Your task to perform on an android device: add a contact in the contacts app Image 0: 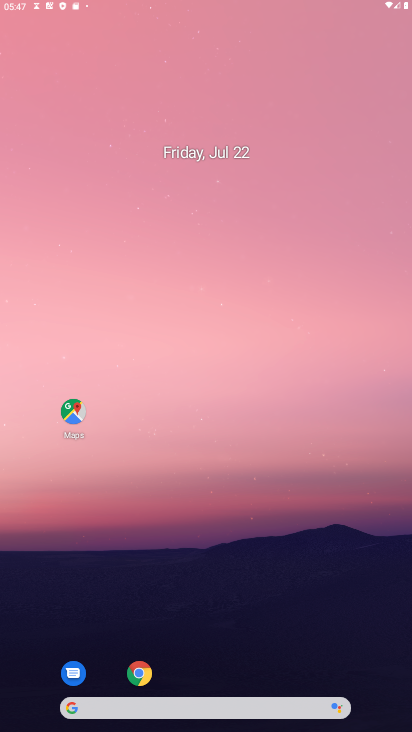
Step 0: press home button
Your task to perform on an android device: add a contact in the contacts app Image 1: 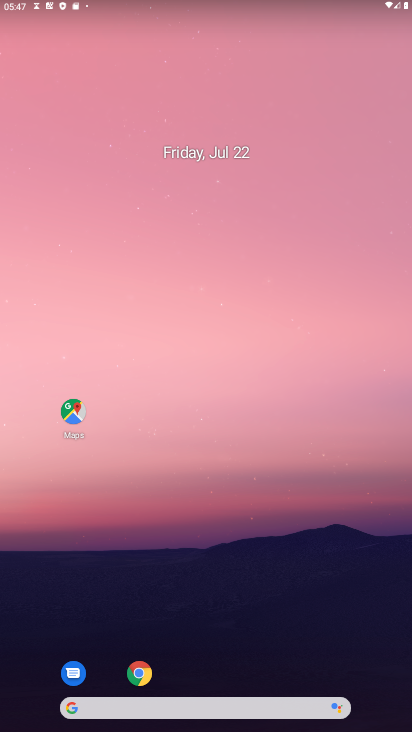
Step 1: drag from (240, 664) to (256, 5)
Your task to perform on an android device: add a contact in the contacts app Image 2: 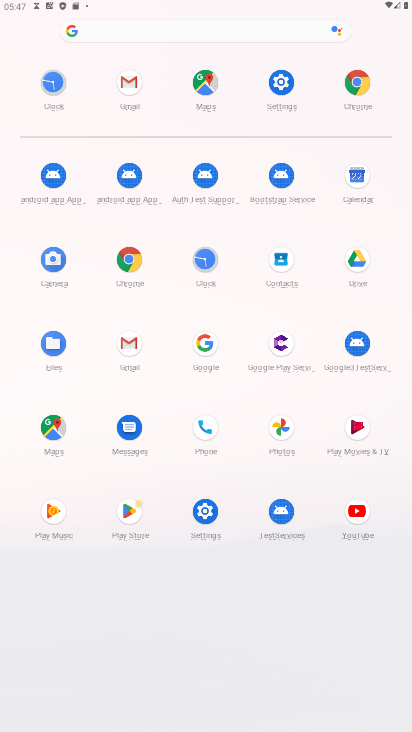
Step 2: click (284, 263)
Your task to perform on an android device: add a contact in the contacts app Image 3: 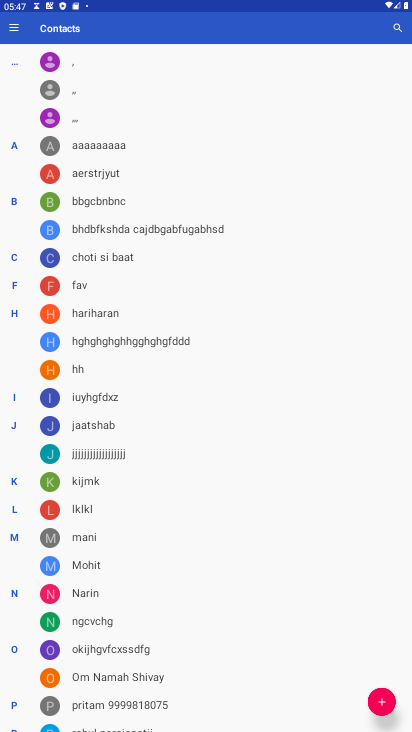
Step 3: click (379, 707)
Your task to perform on an android device: add a contact in the contacts app Image 4: 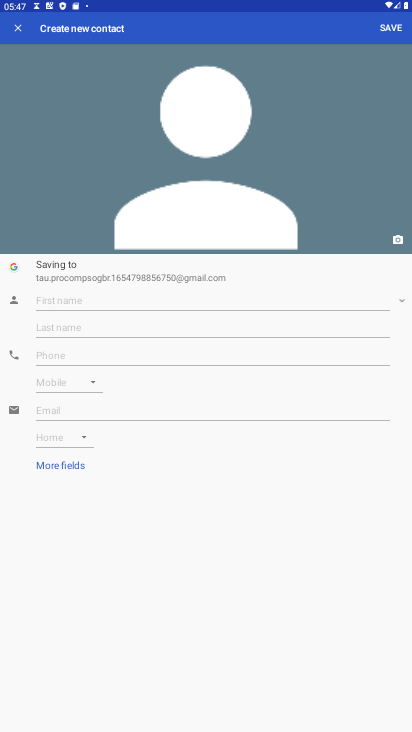
Step 4: click (51, 292)
Your task to perform on an android device: add a contact in the contacts app Image 5: 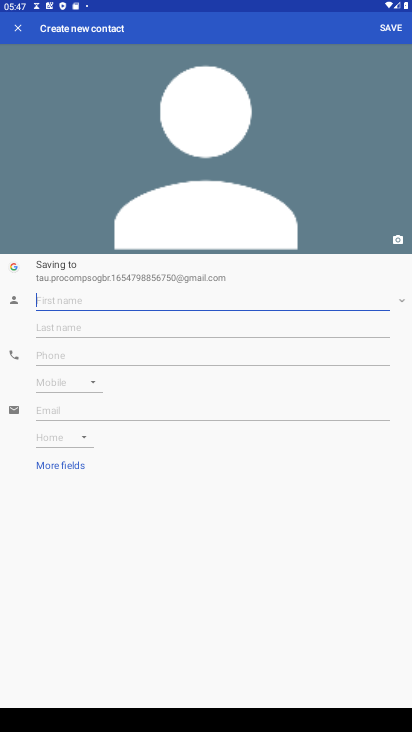
Step 5: type "hjhjhjh"
Your task to perform on an android device: add a contact in the contacts app Image 6: 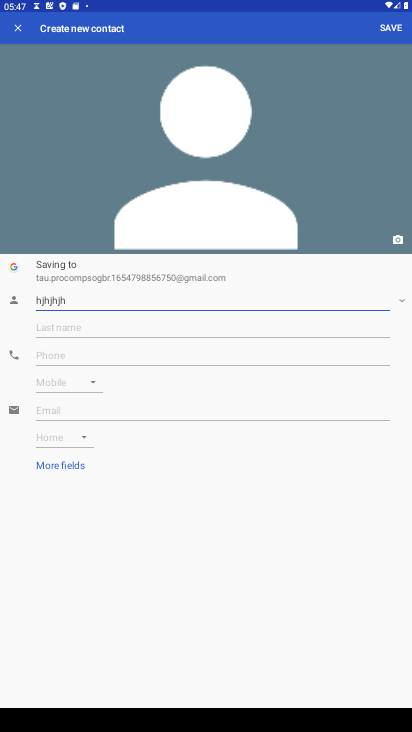
Step 6: click (56, 345)
Your task to perform on an android device: add a contact in the contacts app Image 7: 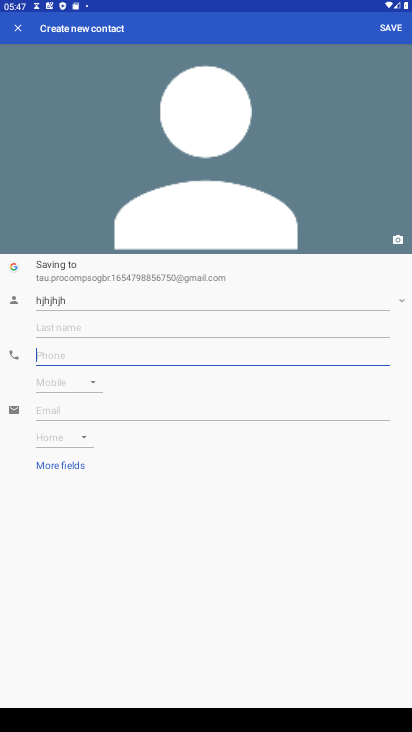
Step 7: type "5876876"
Your task to perform on an android device: add a contact in the contacts app Image 8: 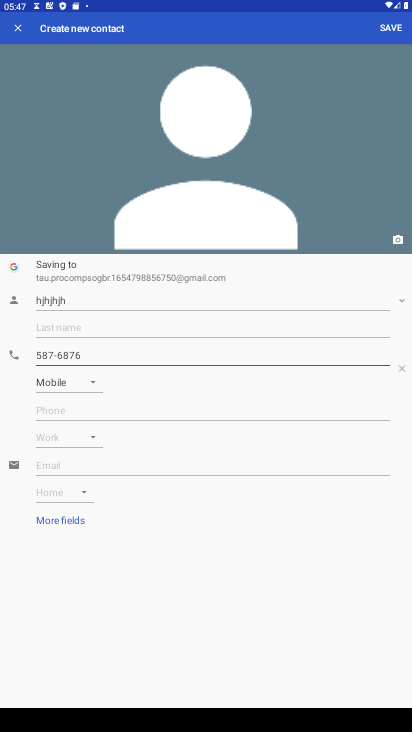
Step 8: click (391, 28)
Your task to perform on an android device: add a contact in the contacts app Image 9: 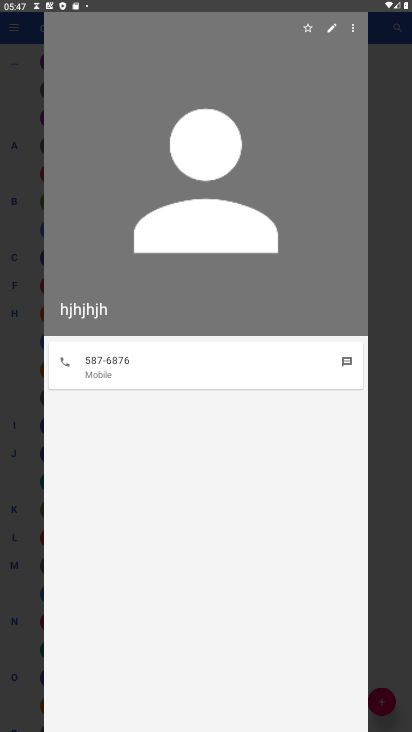
Step 9: task complete